Your task to perform on an android device: add a label to a message in the gmail app Image 0: 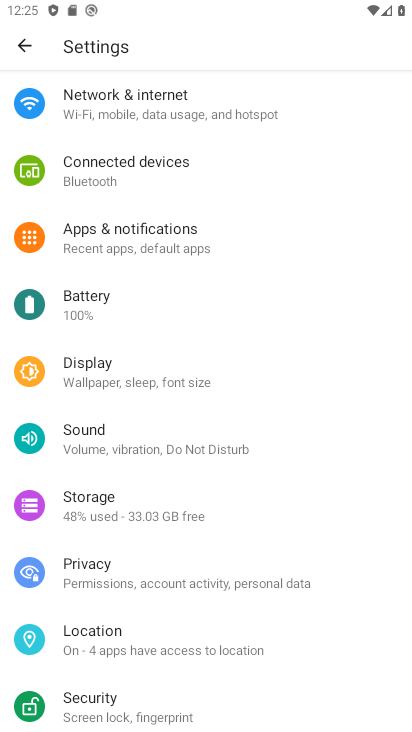
Step 0: press home button
Your task to perform on an android device: add a label to a message in the gmail app Image 1: 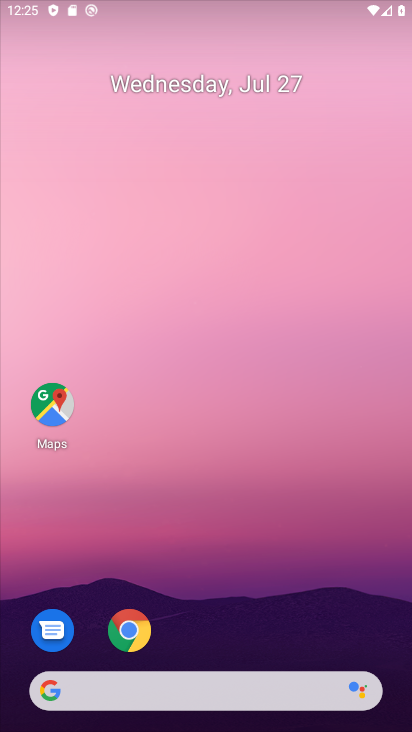
Step 1: drag from (181, 698) to (135, 267)
Your task to perform on an android device: add a label to a message in the gmail app Image 2: 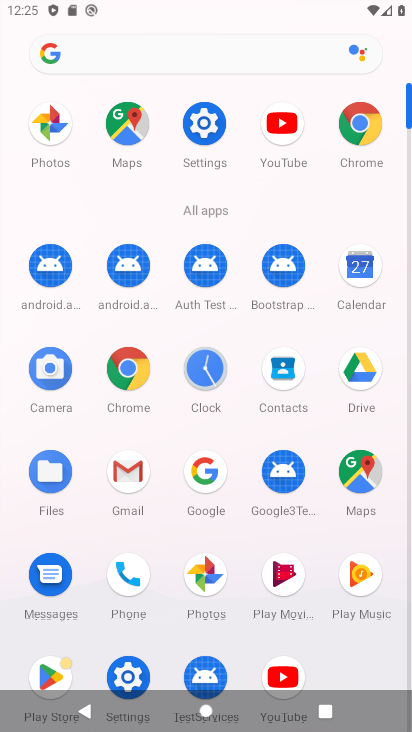
Step 2: click (130, 477)
Your task to perform on an android device: add a label to a message in the gmail app Image 3: 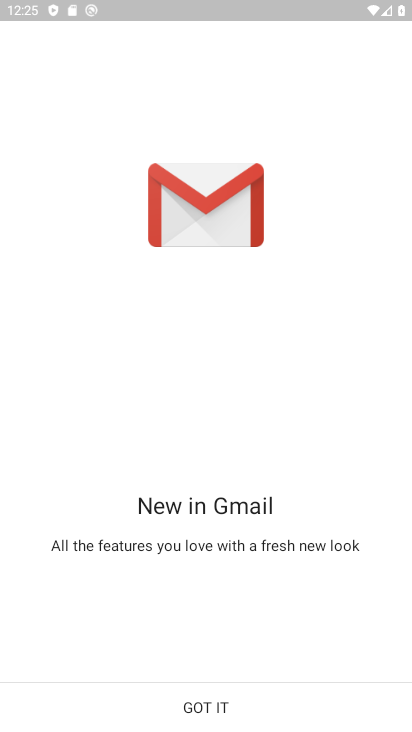
Step 3: click (190, 707)
Your task to perform on an android device: add a label to a message in the gmail app Image 4: 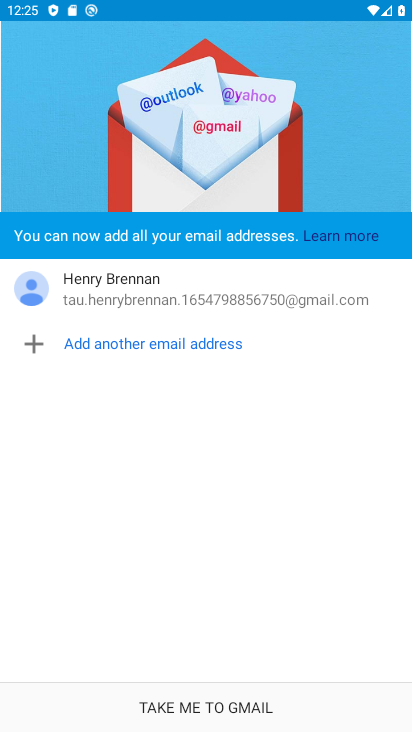
Step 4: click (190, 707)
Your task to perform on an android device: add a label to a message in the gmail app Image 5: 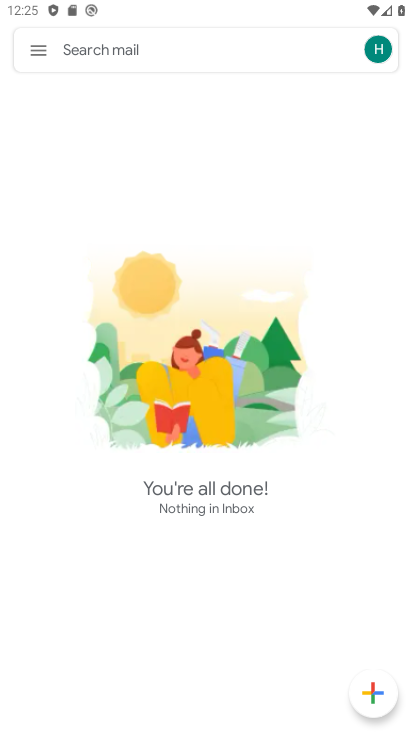
Step 5: task complete